Your task to perform on an android device: turn pop-ups off in chrome Image 0: 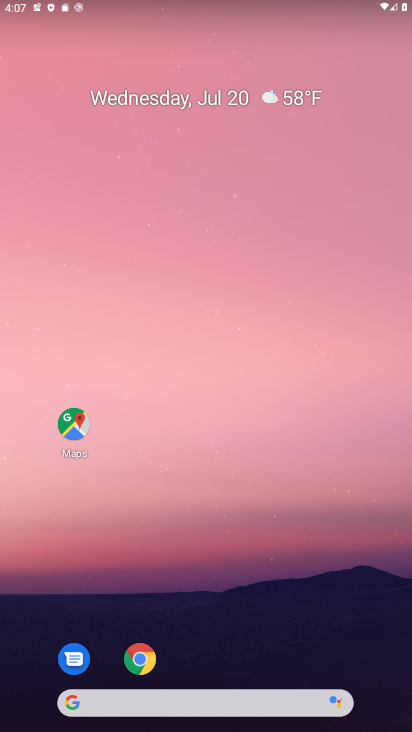
Step 0: click (172, 185)
Your task to perform on an android device: turn pop-ups off in chrome Image 1: 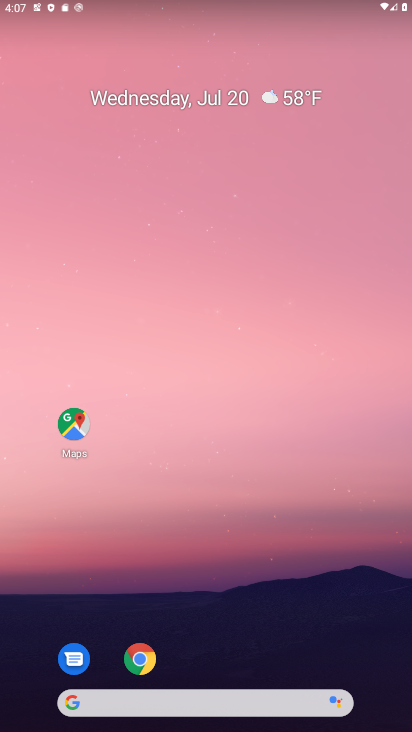
Step 1: drag from (192, 503) to (145, 51)
Your task to perform on an android device: turn pop-ups off in chrome Image 2: 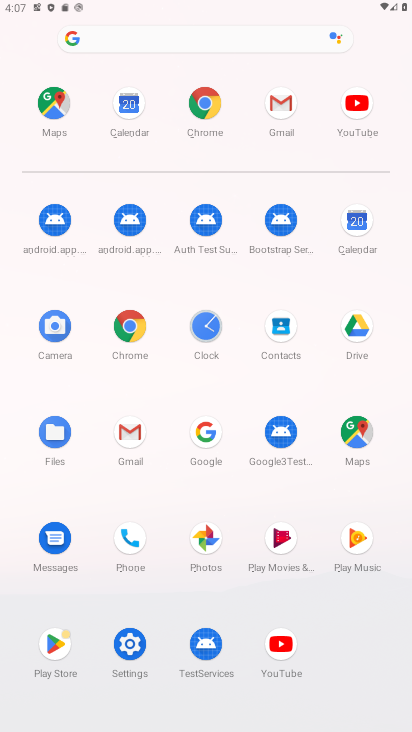
Step 2: click (196, 98)
Your task to perform on an android device: turn pop-ups off in chrome Image 3: 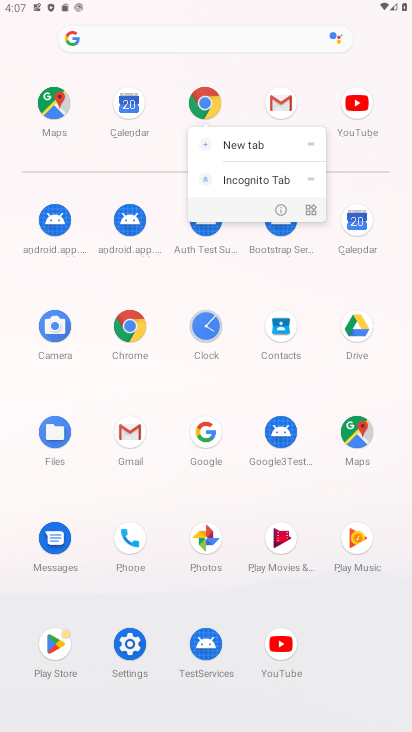
Step 3: click (202, 112)
Your task to perform on an android device: turn pop-ups off in chrome Image 4: 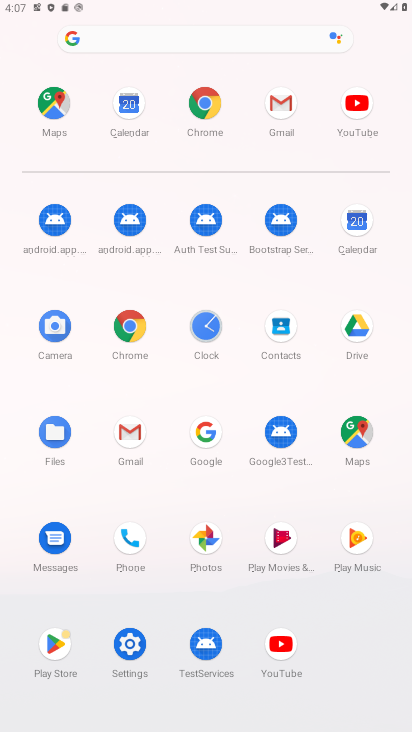
Step 4: click (208, 99)
Your task to perform on an android device: turn pop-ups off in chrome Image 5: 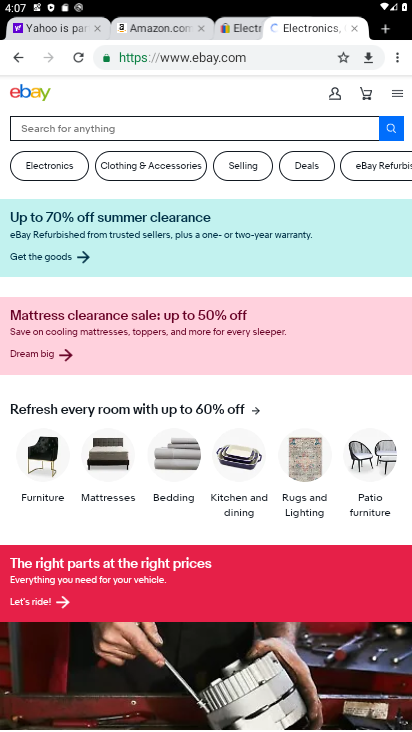
Step 5: drag from (393, 54) to (273, 376)
Your task to perform on an android device: turn pop-ups off in chrome Image 6: 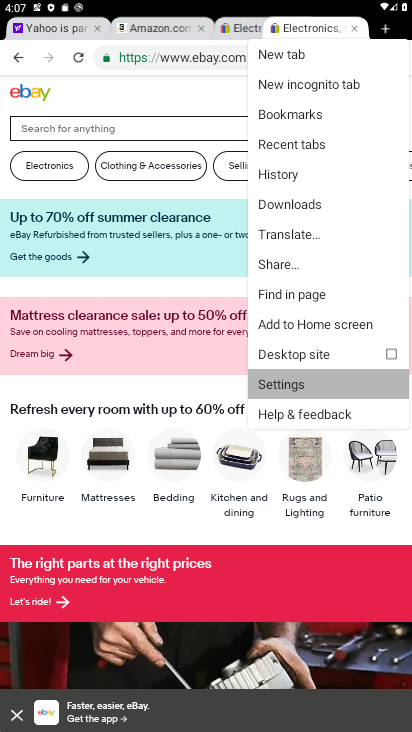
Step 6: click (273, 376)
Your task to perform on an android device: turn pop-ups off in chrome Image 7: 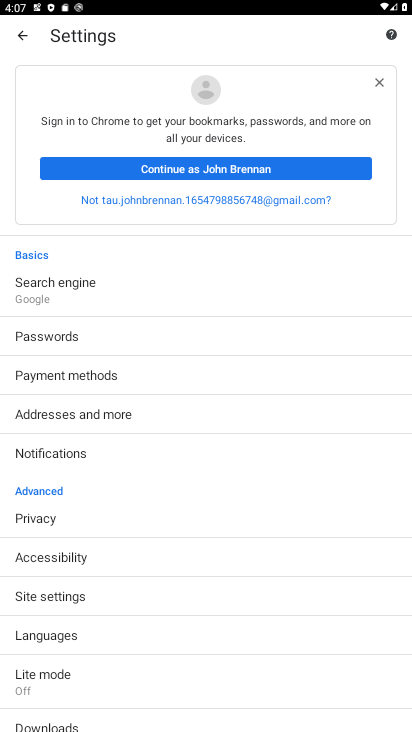
Step 7: drag from (109, 539) to (76, 201)
Your task to perform on an android device: turn pop-ups off in chrome Image 8: 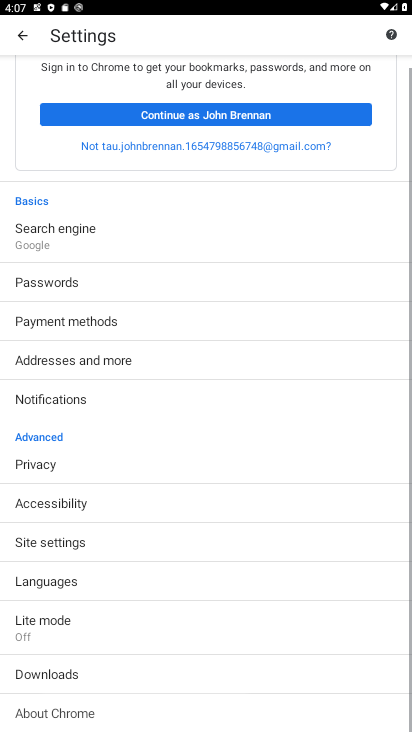
Step 8: drag from (91, 565) to (97, 273)
Your task to perform on an android device: turn pop-ups off in chrome Image 9: 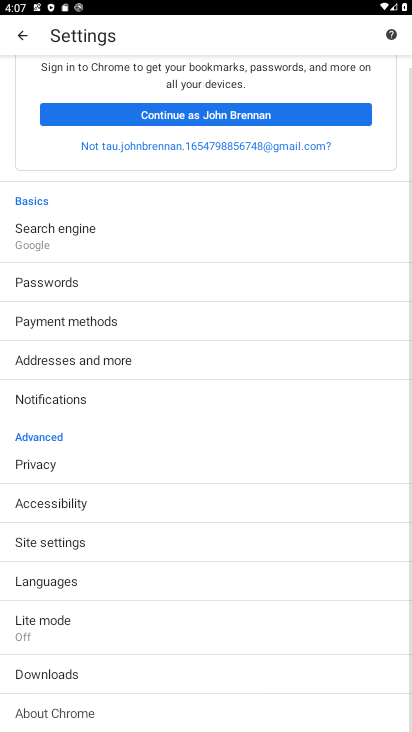
Step 9: drag from (119, 504) to (144, 190)
Your task to perform on an android device: turn pop-ups off in chrome Image 10: 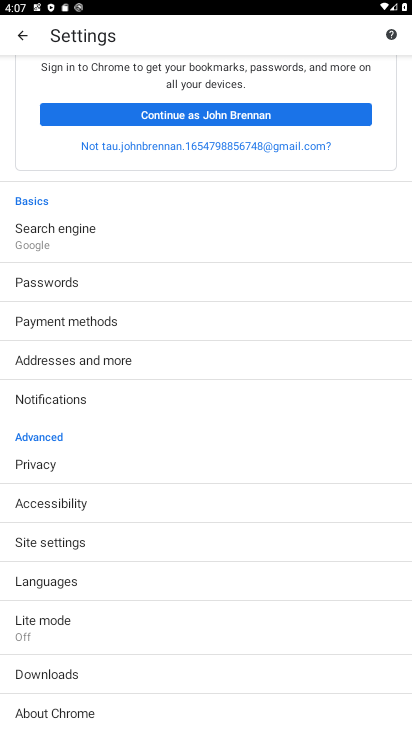
Step 10: drag from (112, 639) to (71, 260)
Your task to perform on an android device: turn pop-ups off in chrome Image 11: 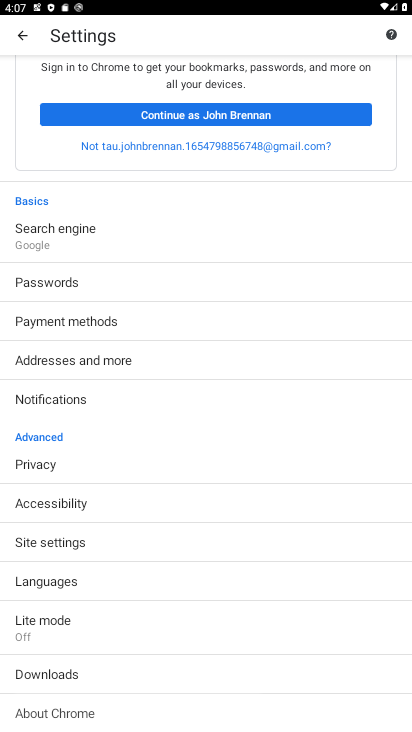
Step 11: drag from (33, 602) to (74, 247)
Your task to perform on an android device: turn pop-ups off in chrome Image 12: 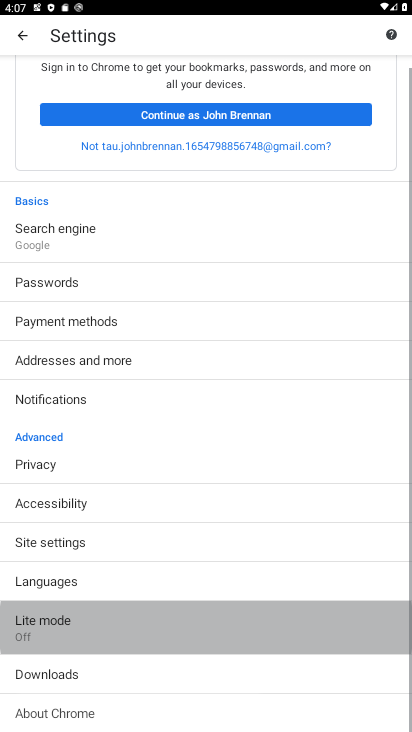
Step 12: drag from (81, 559) to (107, 169)
Your task to perform on an android device: turn pop-ups off in chrome Image 13: 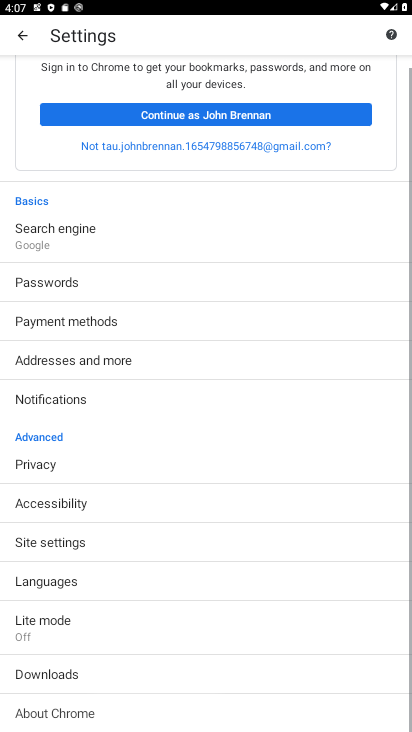
Step 13: drag from (105, 622) to (92, 306)
Your task to perform on an android device: turn pop-ups off in chrome Image 14: 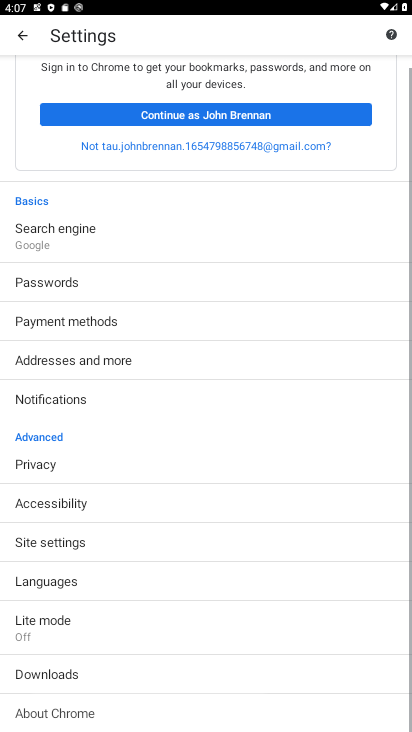
Step 14: drag from (77, 723) to (71, 403)
Your task to perform on an android device: turn pop-ups off in chrome Image 15: 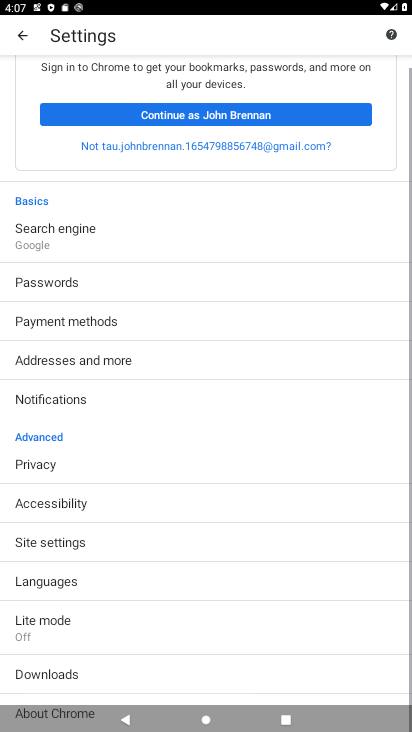
Step 15: drag from (42, 671) to (31, 322)
Your task to perform on an android device: turn pop-ups off in chrome Image 16: 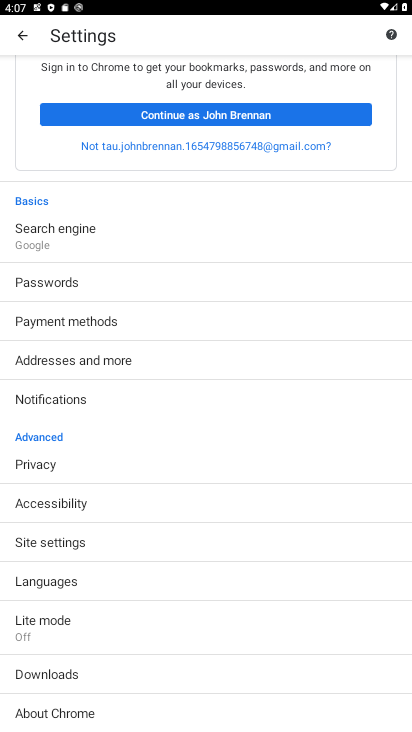
Step 16: click (46, 541)
Your task to perform on an android device: turn pop-ups off in chrome Image 17: 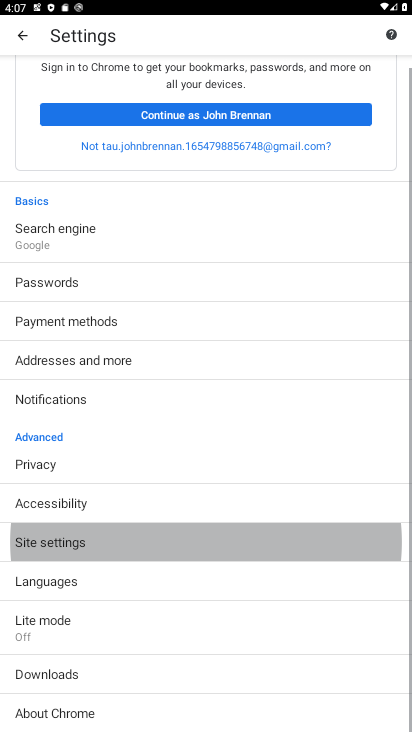
Step 17: click (46, 541)
Your task to perform on an android device: turn pop-ups off in chrome Image 18: 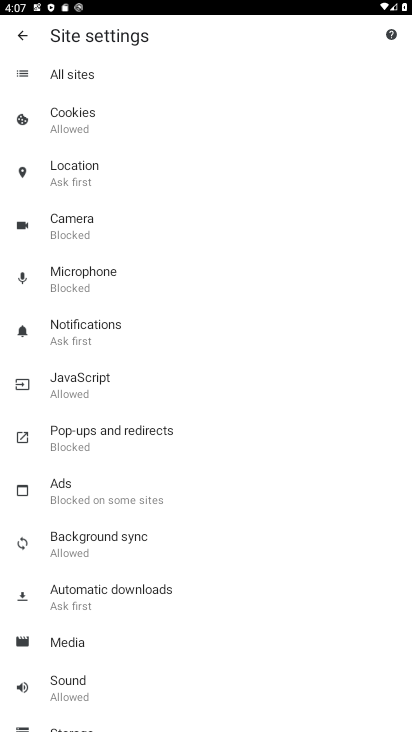
Step 18: click (77, 435)
Your task to perform on an android device: turn pop-ups off in chrome Image 19: 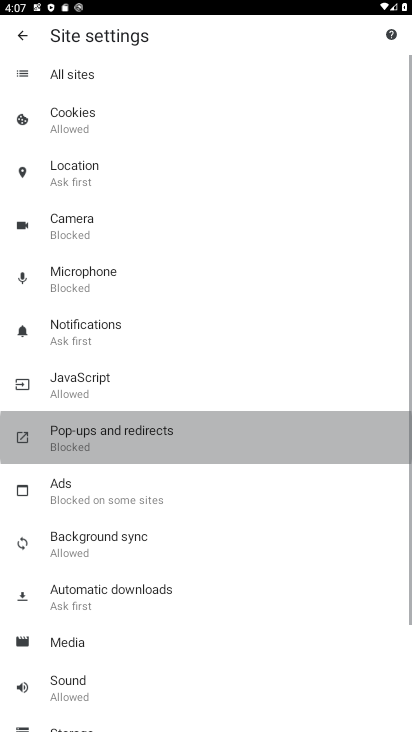
Step 19: click (77, 435)
Your task to perform on an android device: turn pop-ups off in chrome Image 20: 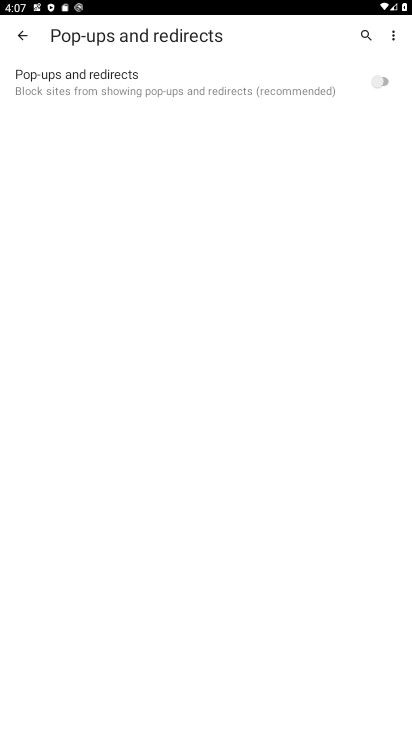
Step 20: task complete